Your task to perform on an android device: show emergency info Image 0: 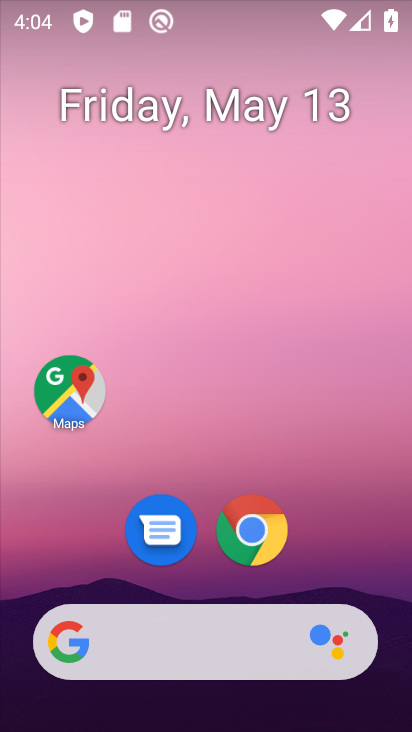
Step 0: drag from (321, 680) to (311, 227)
Your task to perform on an android device: show emergency info Image 1: 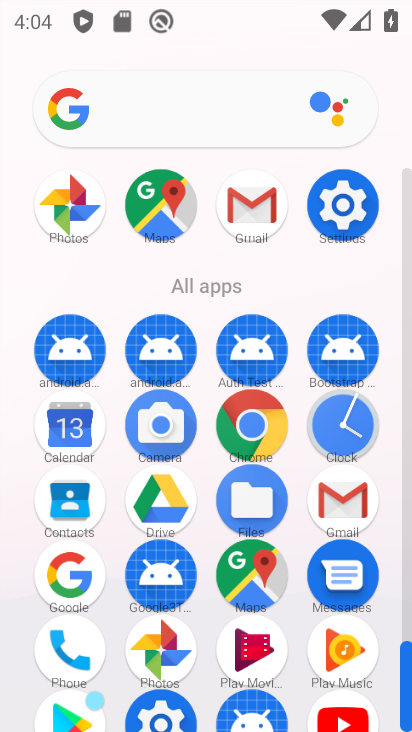
Step 1: click (319, 214)
Your task to perform on an android device: show emergency info Image 2: 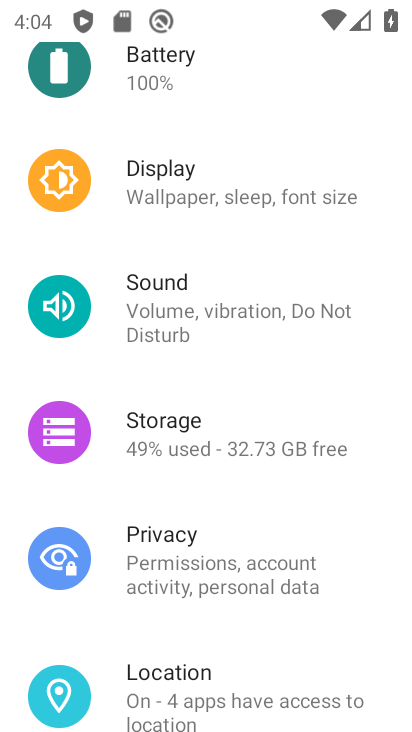
Step 2: drag from (161, 76) to (165, 420)
Your task to perform on an android device: show emergency info Image 3: 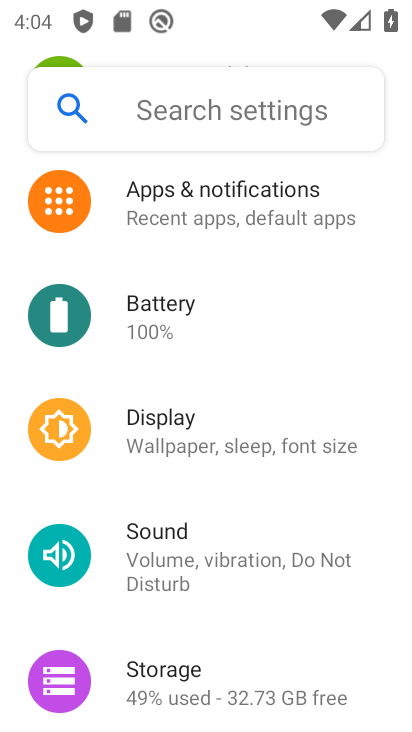
Step 3: click (166, 108)
Your task to perform on an android device: show emergency info Image 4: 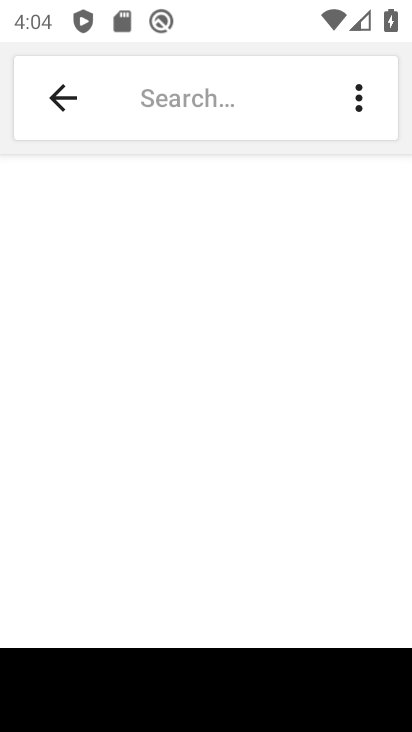
Step 4: click (387, 708)
Your task to perform on an android device: show emergency info Image 5: 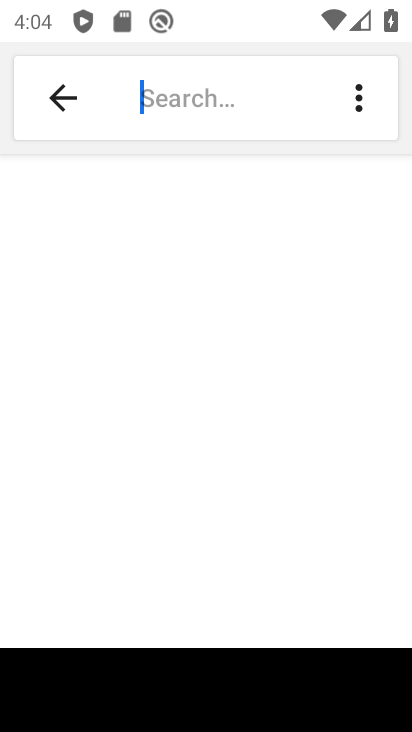
Step 5: drag from (384, 701) to (393, 547)
Your task to perform on an android device: show emergency info Image 6: 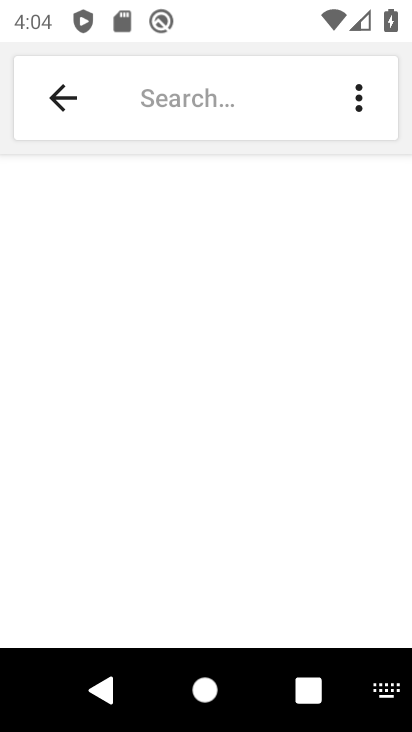
Step 6: click (385, 685)
Your task to perform on an android device: show emergency info Image 7: 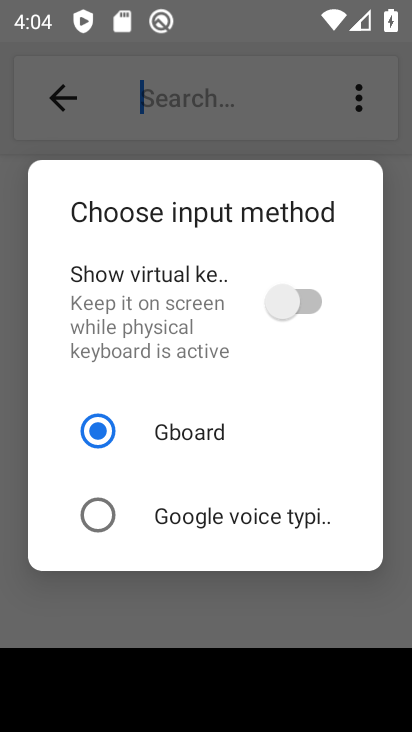
Step 7: click (295, 304)
Your task to perform on an android device: show emergency info Image 8: 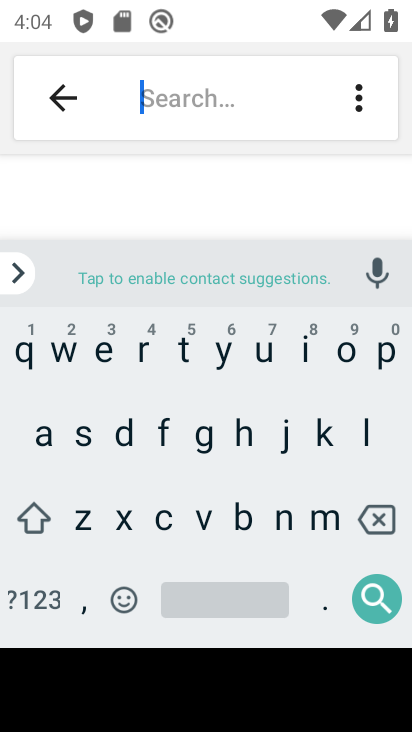
Step 8: click (99, 366)
Your task to perform on an android device: show emergency info Image 9: 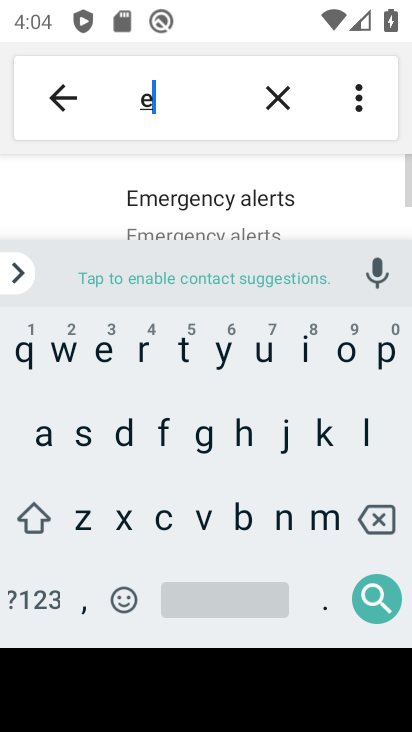
Step 9: click (332, 531)
Your task to perform on an android device: show emergency info Image 10: 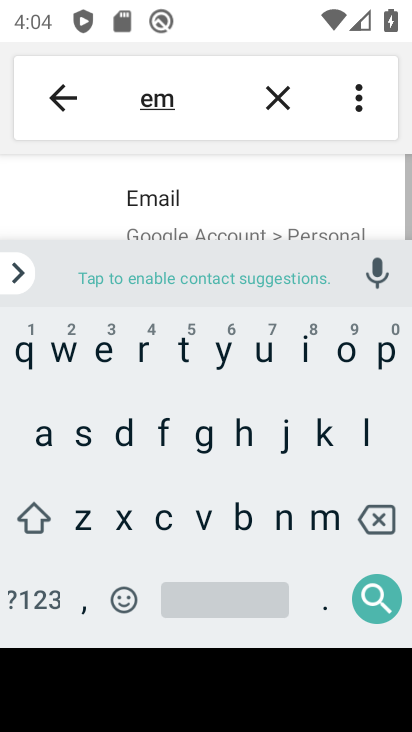
Step 10: click (103, 354)
Your task to perform on an android device: show emergency info Image 11: 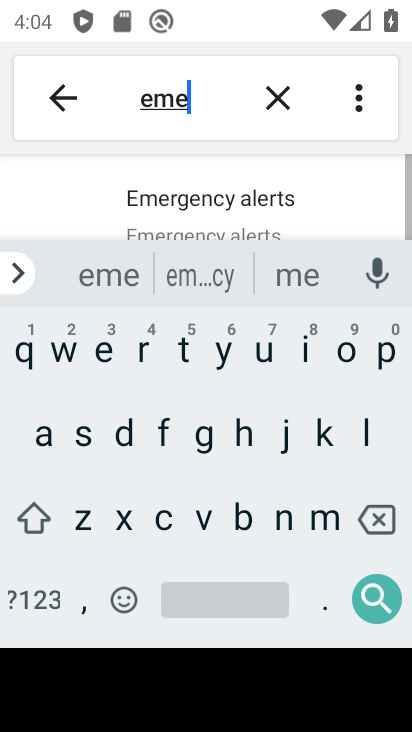
Step 11: click (200, 290)
Your task to perform on an android device: show emergency info Image 12: 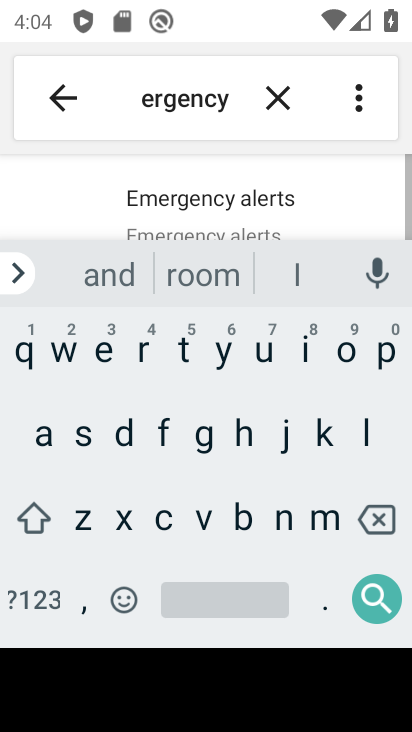
Step 12: click (299, 352)
Your task to perform on an android device: show emergency info Image 13: 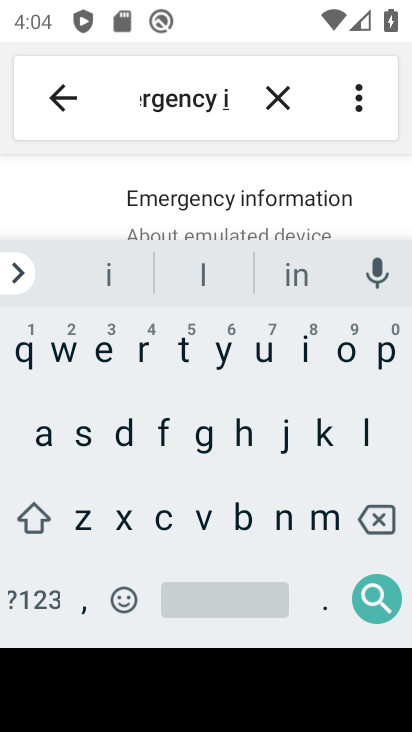
Step 13: click (235, 199)
Your task to perform on an android device: show emergency info Image 14: 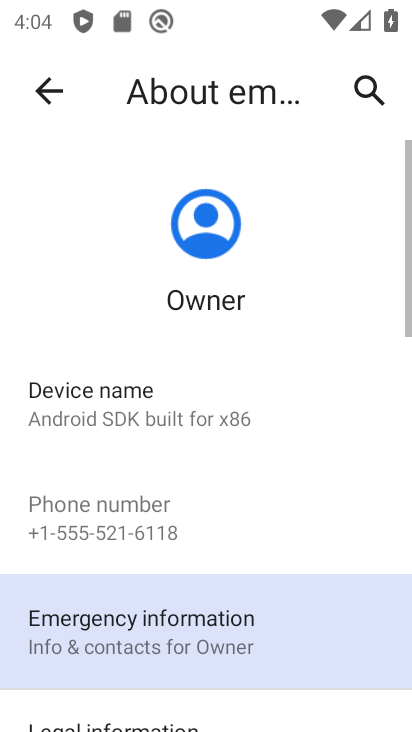
Step 14: task complete